Your task to perform on an android device: Go to Google Image 0: 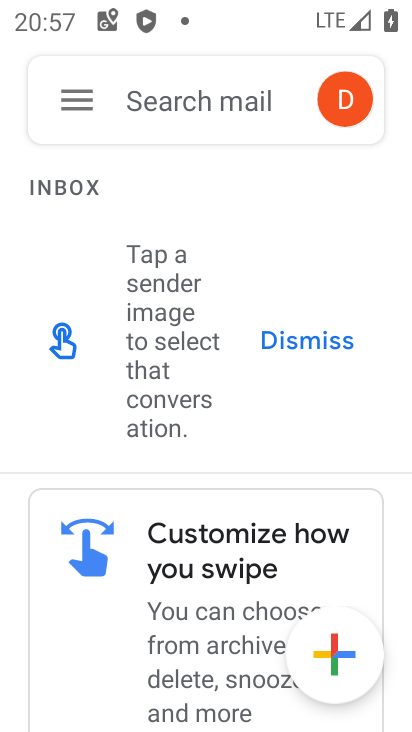
Step 0: press home button
Your task to perform on an android device: Go to Google Image 1: 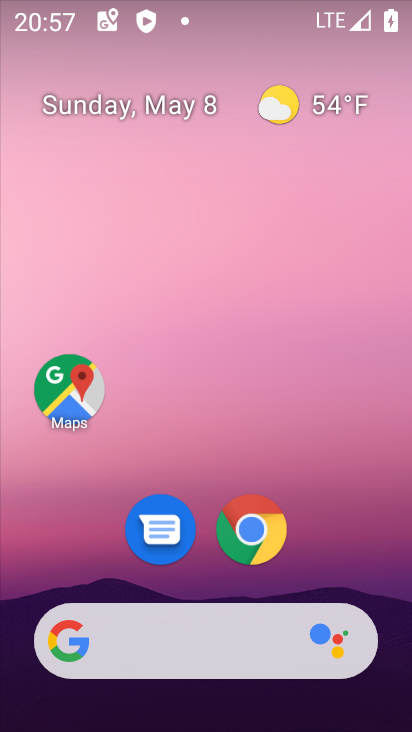
Step 1: drag from (356, 545) to (375, 140)
Your task to perform on an android device: Go to Google Image 2: 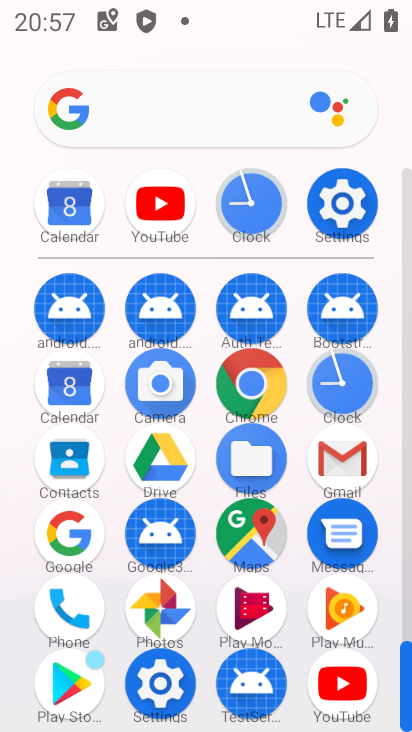
Step 2: click (77, 543)
Your task to perform on an android device: Go to Google Image 3: 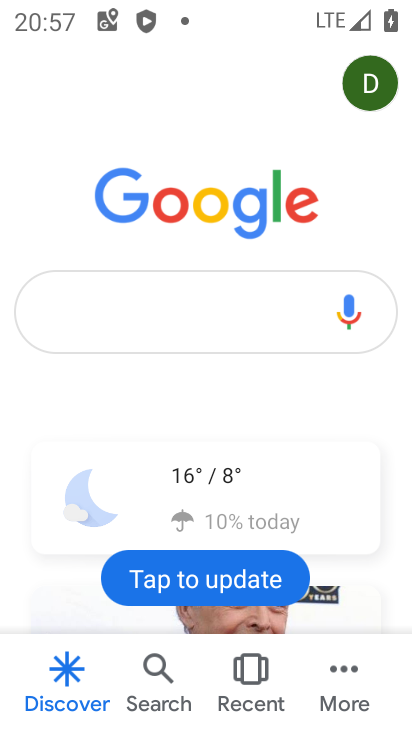
Step 3: task complete